Your task to perform on an android device: open a bookmark in the chrome app Image 0: 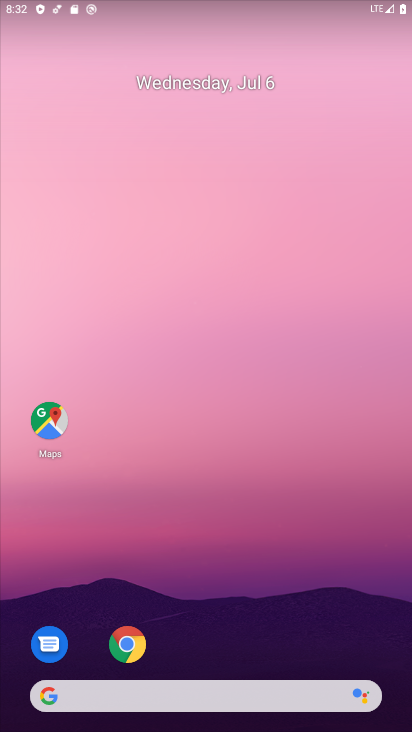
Step 0: drag from (229, 637) to (229, 107)
Your task to perform on an android device: open a bookmark in the chrome app Image 1: 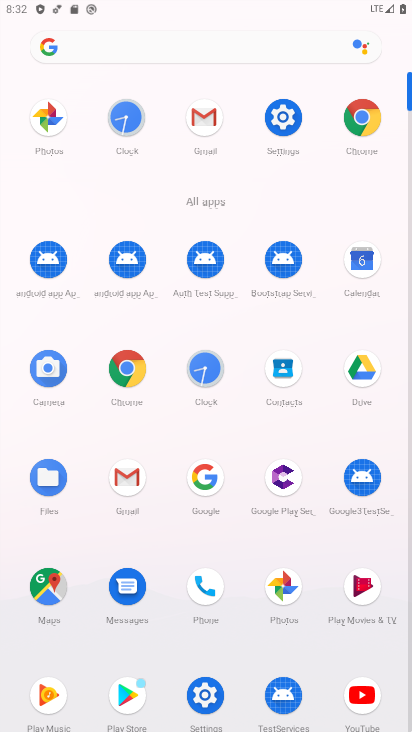
Step 1: click (351, 115)
Your task to perform on an android device: open a bookmark in the chrome app Image 2: 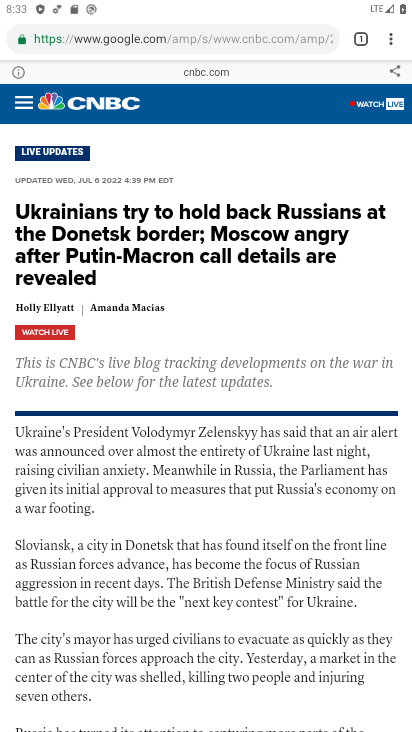
Step 2: click (382, 34)
Your task to perform on an android device: open a bookmark in the chrome app Image 3: 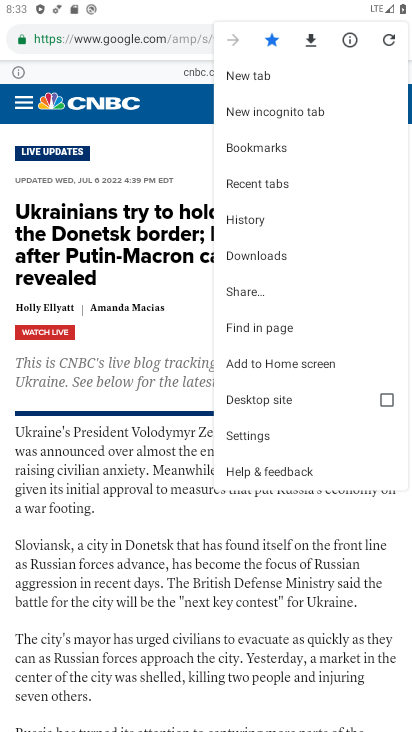
Step 3: click (298, 148)
Your task to perform on an android device: open a bookmark in the chrome app Image 4: 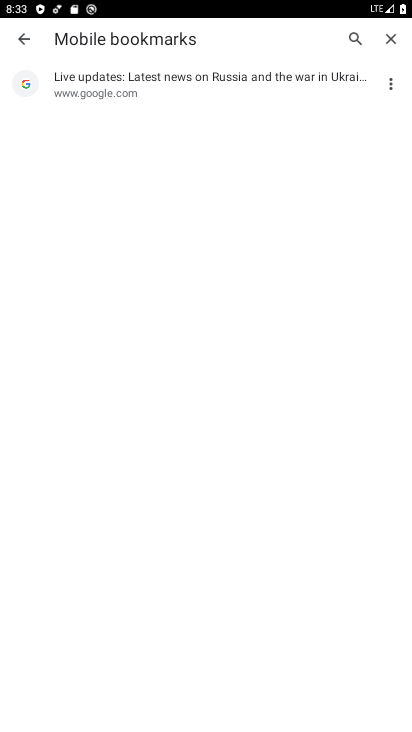
Step 4: click (186, 104)
Your task to perform on an android device: open a bookmark in the chrome app Image 5: 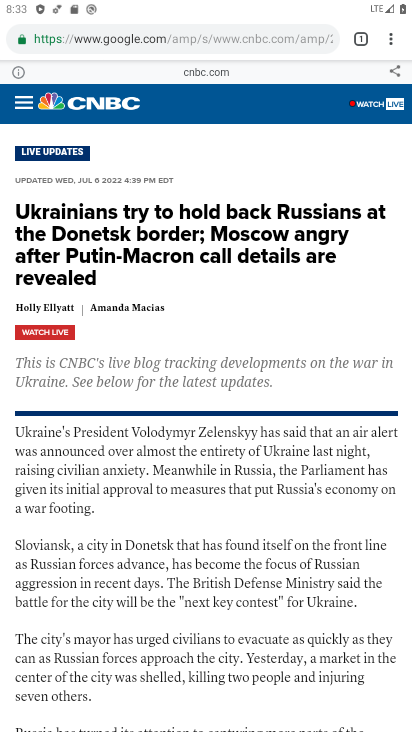
Step 5: task complete